Your task to perform on an android device: Clear the cart on walmart. Add usb-a to usb-b to the cart on walmart Image 0: 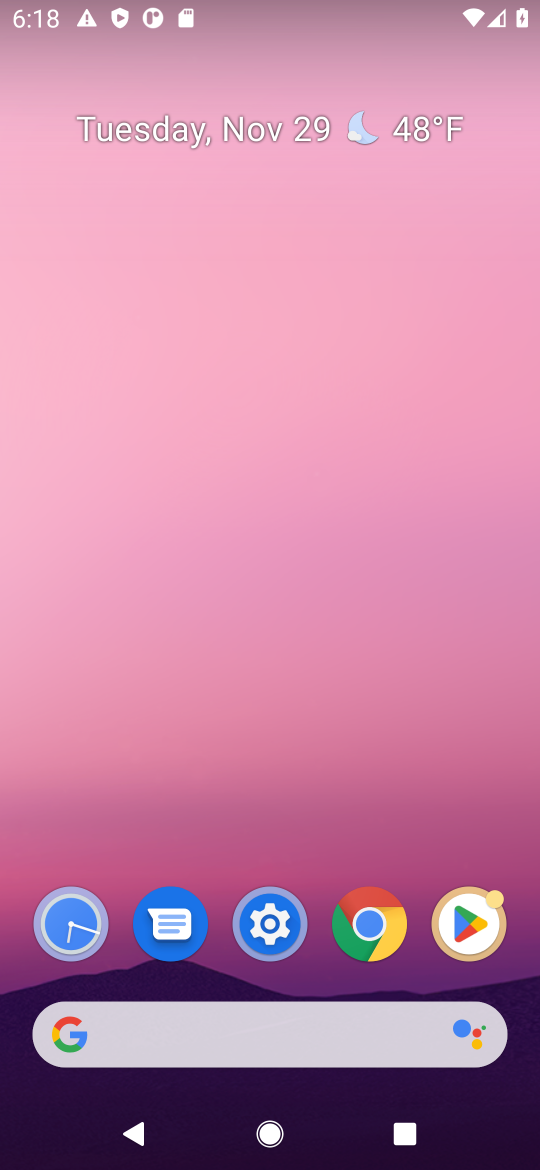
Step 0: click (169, 1045)
Your task to perform on an android device: Clear the cart on walmart. Add usb-a to usb-b to the cart on walmart Image 1: 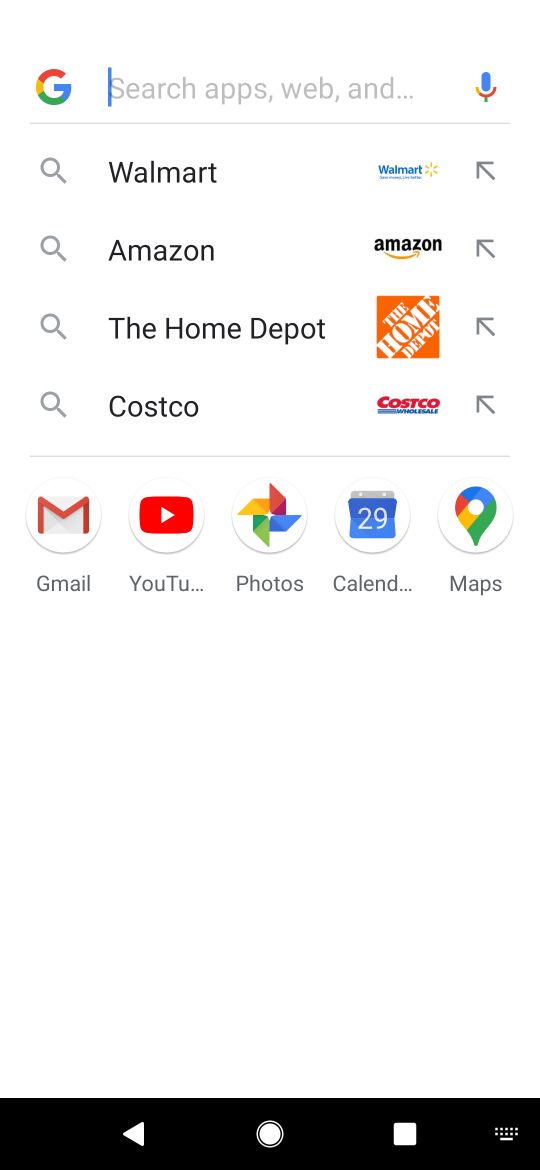
Step 1: type "wal"
Your task to perform on an android device: Clear the cart on walmart. Add usb-a to usb-b to the cart on walmart Image 2: 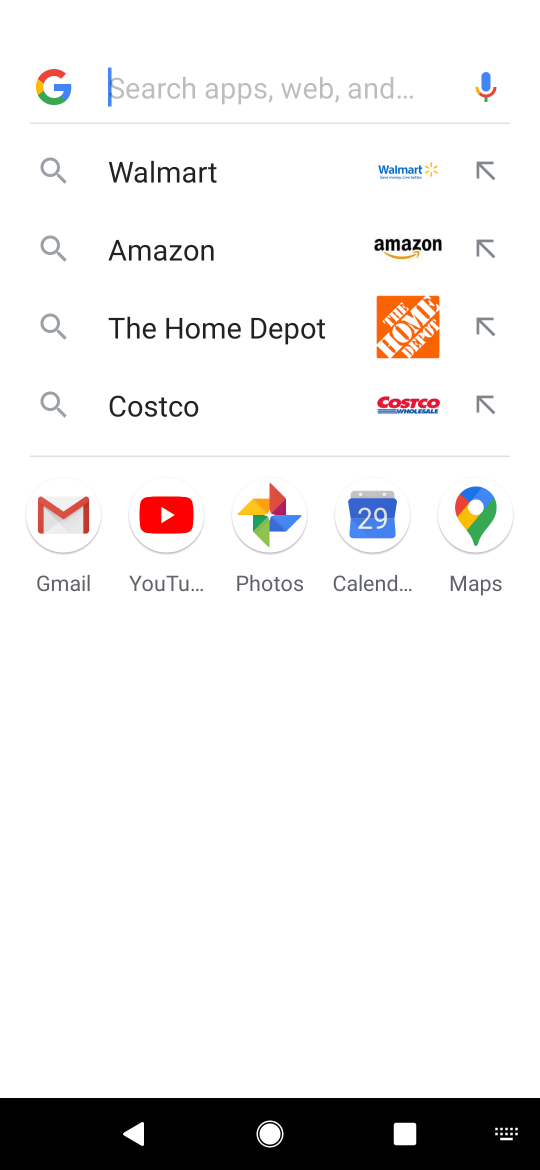
Step 2: click (227, 186)
Your task to perform on an android device: Clear the cart on walmart. Add usb-a to usb-b to the cart on walmart Image 3: 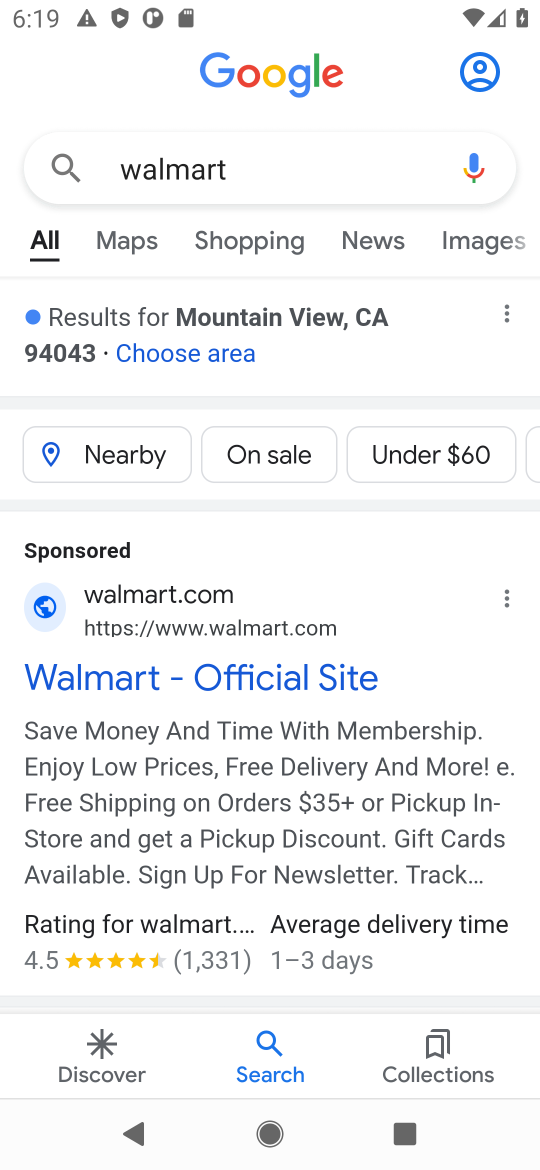
Step 3: click (74, 665)
Your task to perform on an android device: Clear the cart on walmart. Add usb-a to usb-b to the cart on walmart Image 4: 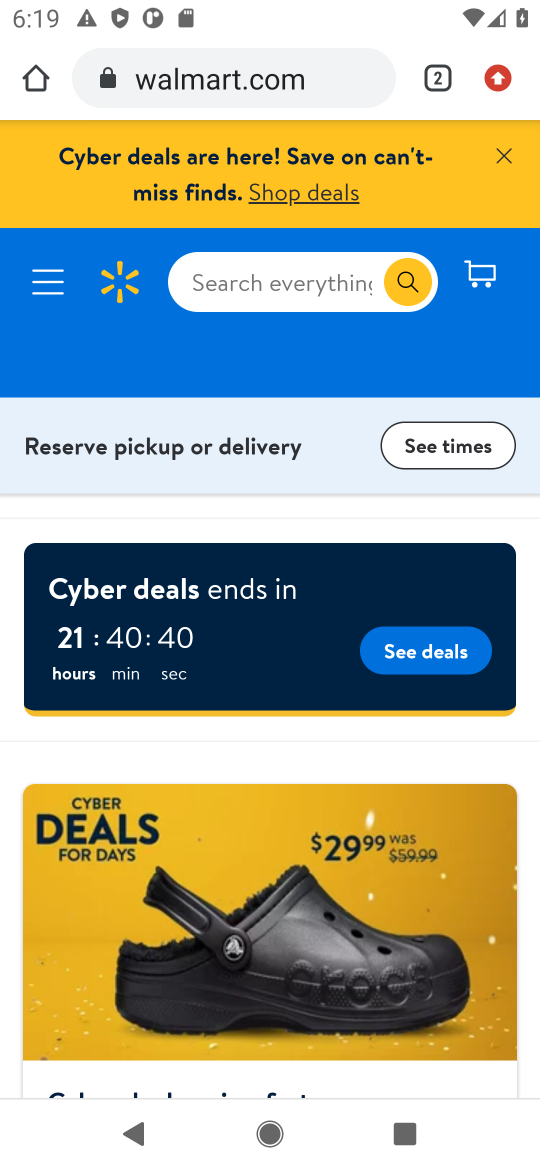
Step 4: click (269, 282)
Your task to perform on an android device: Clear the cart on walmart. Add usb-a to usb-b to the cart on walmart Image 5: 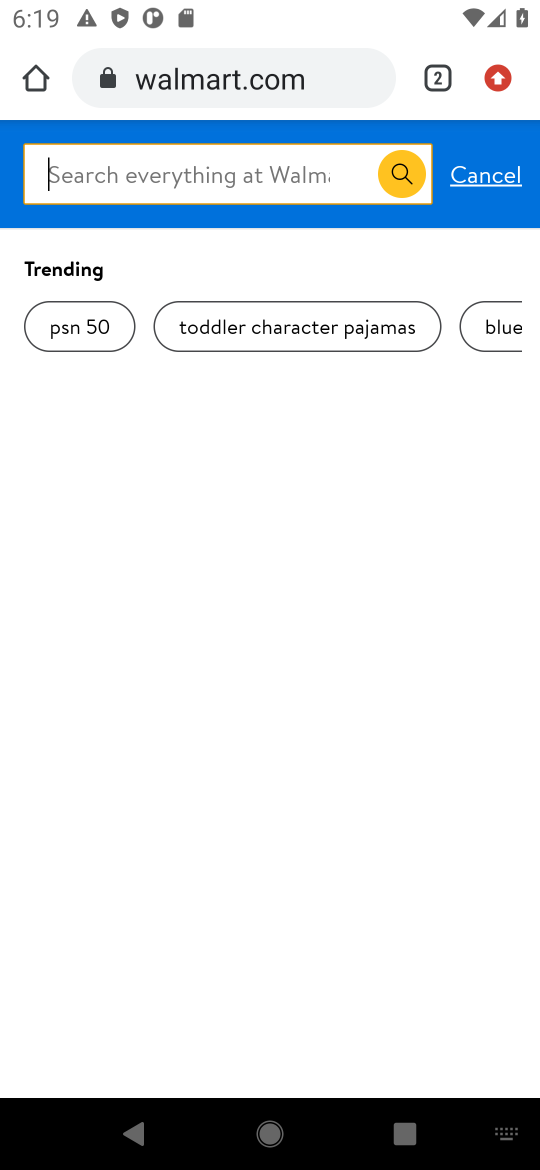
Step 5: type "usb-a to usb-b"
Your task to perform on an android device: Clear the cart on walmart. Add usb-a to usb-b to the cart on walmart Image 6: 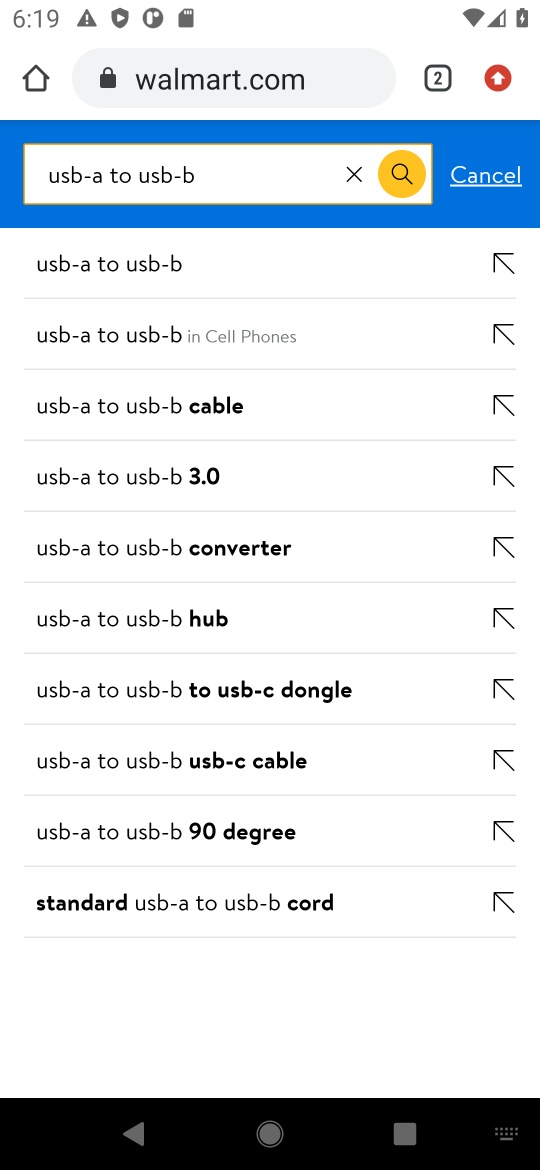
Step 6: click (145, 270)
Your task to perform on an android device: Clear the cart on walmart. Add usb-a to usb-b to the cart on walmart Image 7: 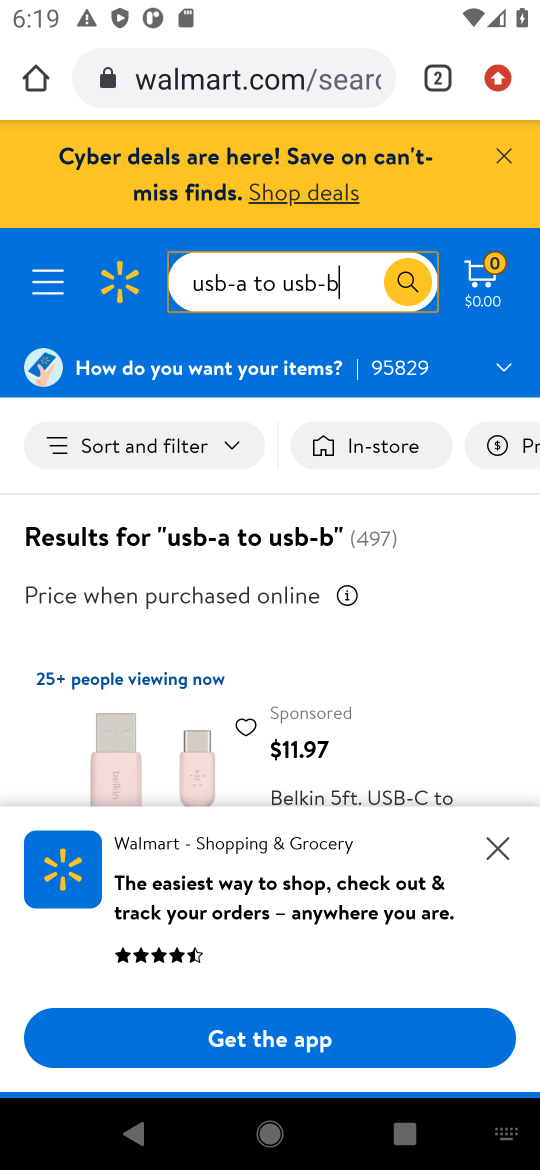
Step 7: click (505, 853)
Your task to perform on an android device: Clear the cart on walmart. Add usb-a to usb-b to the cart on walmart Image 8: 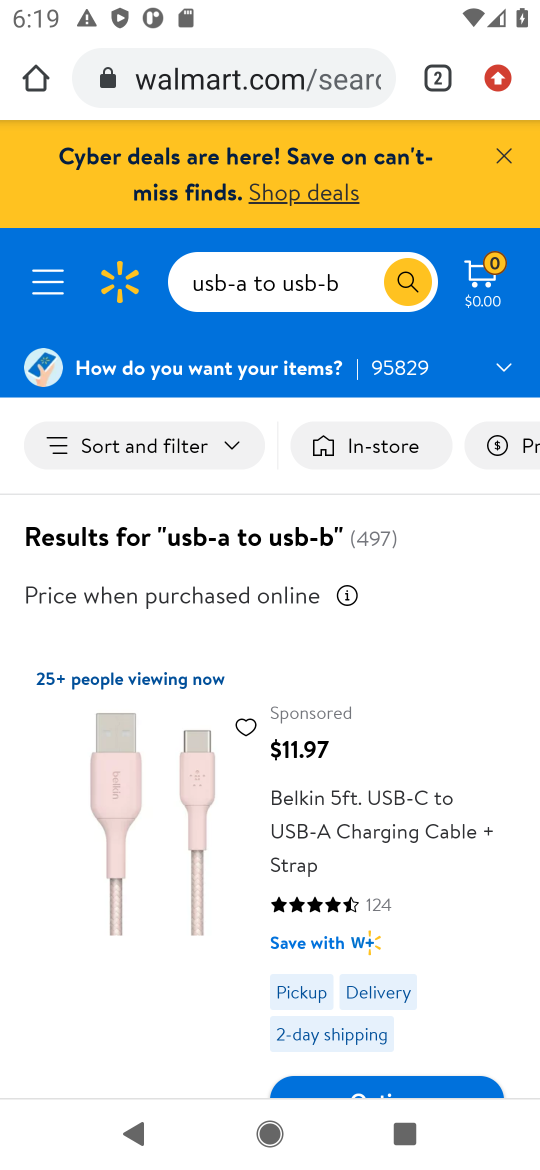
Step 8: click (322, 1081)
Your task to perform on an android device: Clear the cart on walmart. Add usb-a to usb-b to the cart on walmart Image 9: 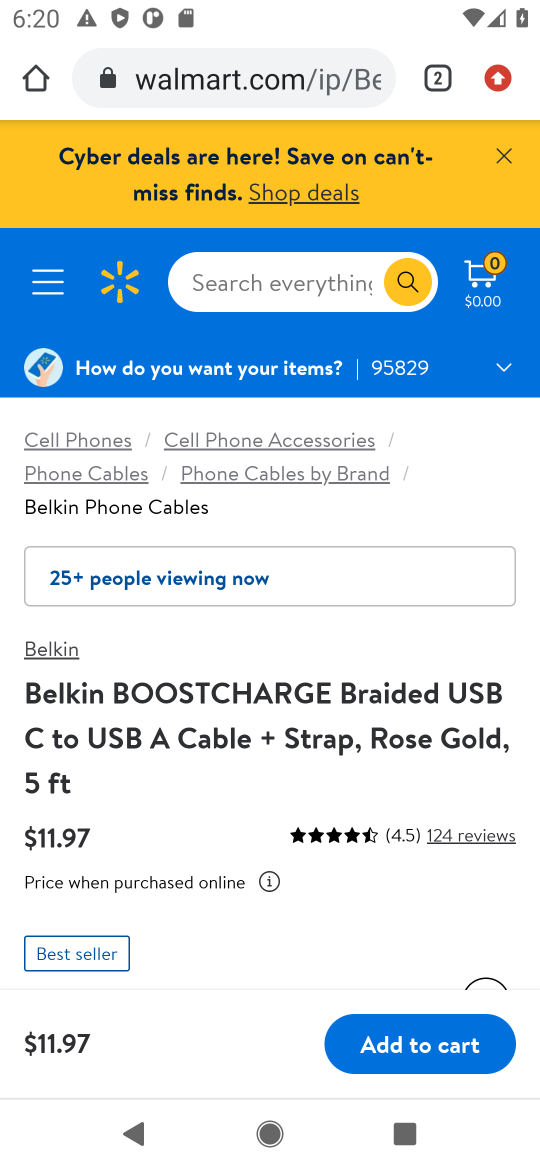
Step 9: click (413, 1045)
Your task to perform on an android device: Clear the cart on walmart. Add usb-a to usb-b to the cart on walmart Image 10: 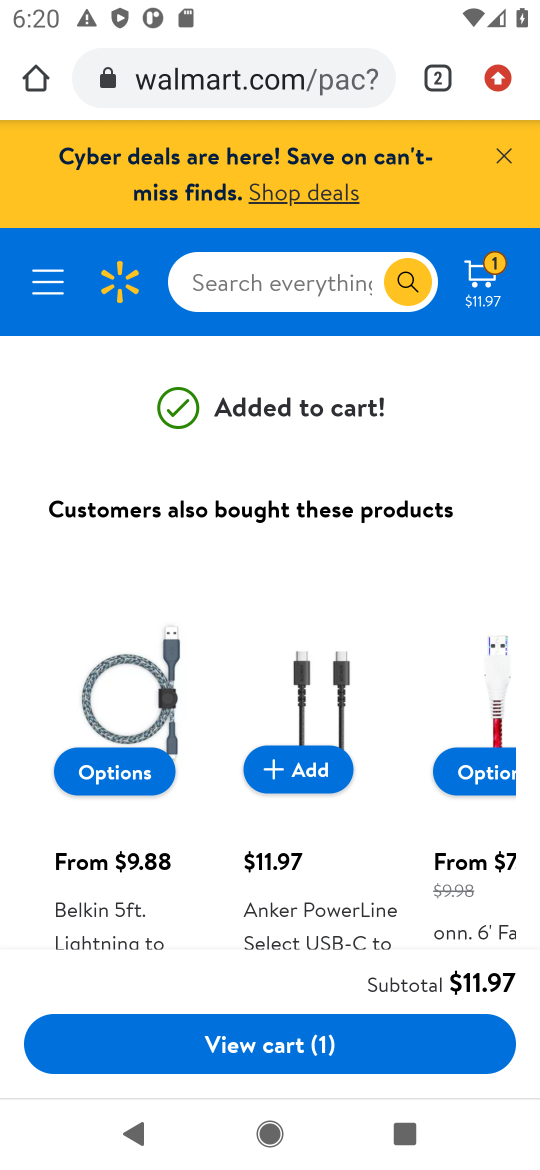
Step 10: task complete